Your task to perform on an android device: turn pop-ups on in chrome Image 0: 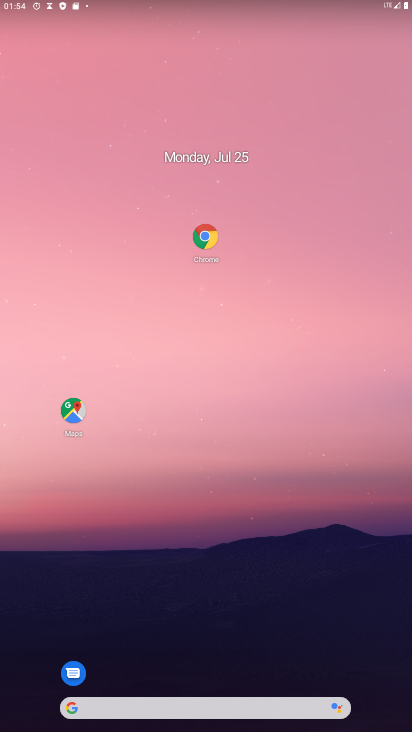
Step 0: drag from (234, 704) to (269, 8)
Your task to perform on an android device: turn pop-ups on in chrome Image 1: 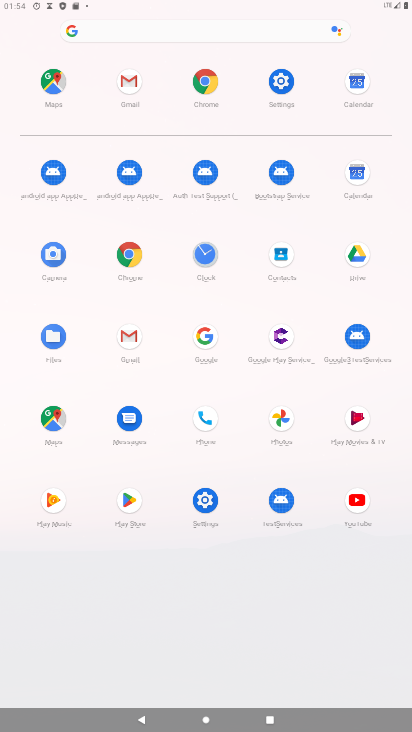
Step 1: click (135, 248)
Your task to perform on an android device: turn pop-ups on in chrome Image 2: 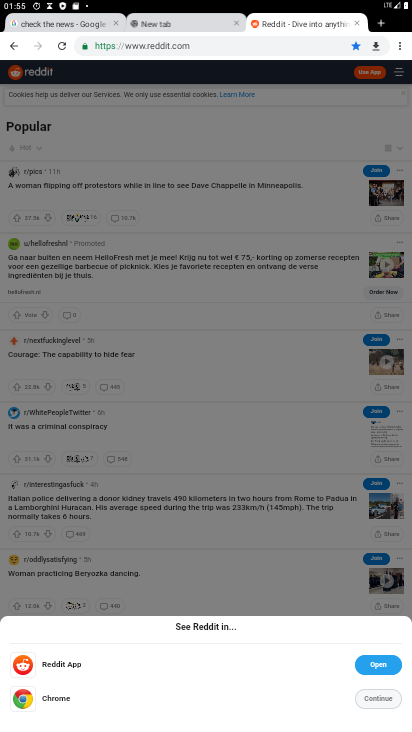
Step 2: drag from (394, 42) to (328, 306)
Your task to perform on an android device: turn pop-ups on in chrome Image 3: 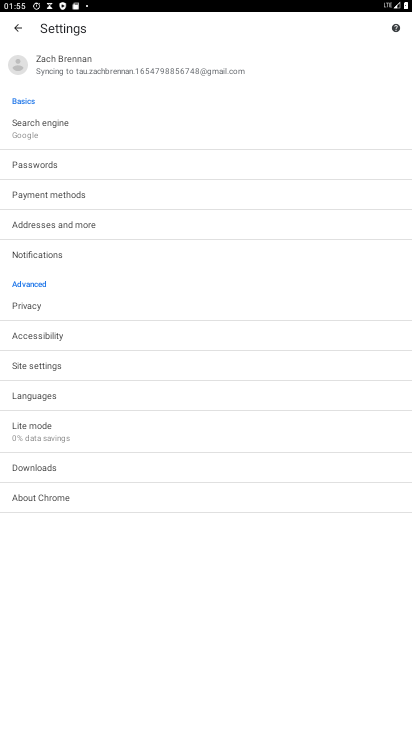
Step 3: click (57, 371)
Your task to perform on an android device: turn pop-ups on in chrome Image 4: 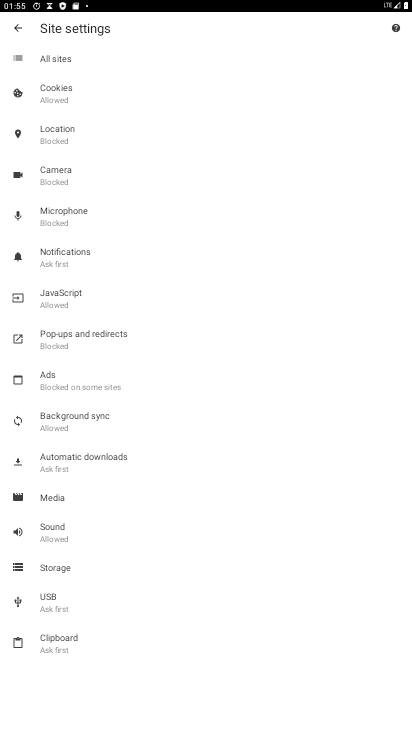
Step 4: click (78, 338)
Your task to perform on an android device: turn pop-ups on in chrome Image 5: 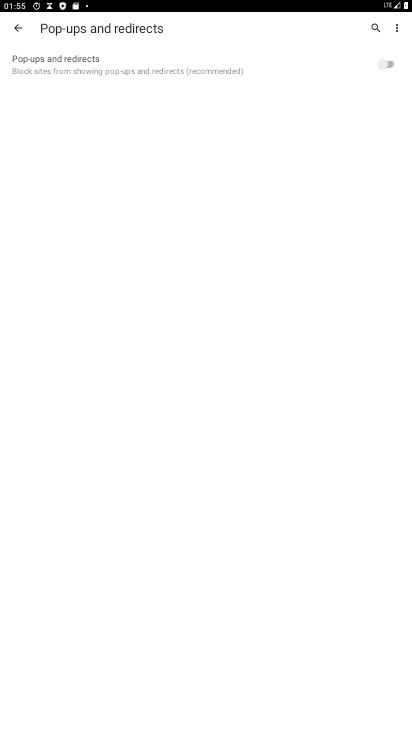
Step 5: click (392, 64)
Your task to perform on an android device: turn pop-ups on in chrome Image 6: 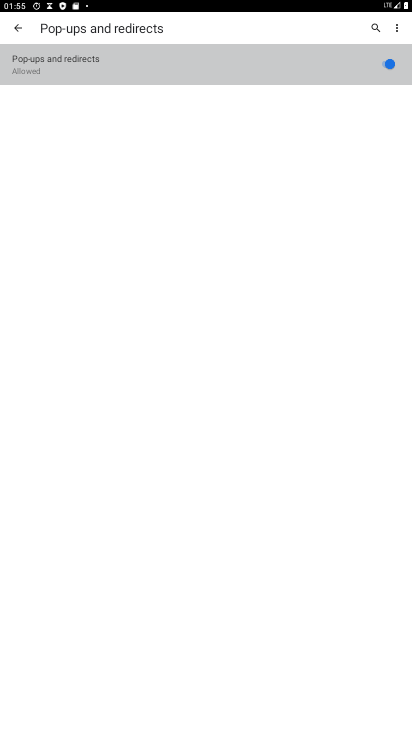
Step 6: task complete